Your task to perform on an android device: set the timer Image 0: 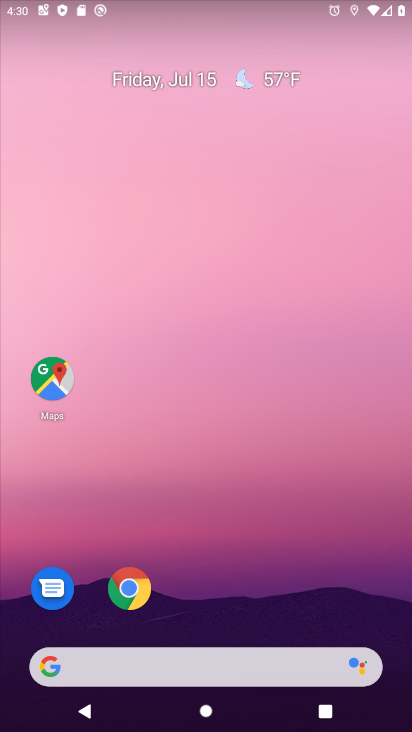
Step 0: drag from (234, 673) to (210, 139)
Your task to perform on an android device: set the timer Image 1: 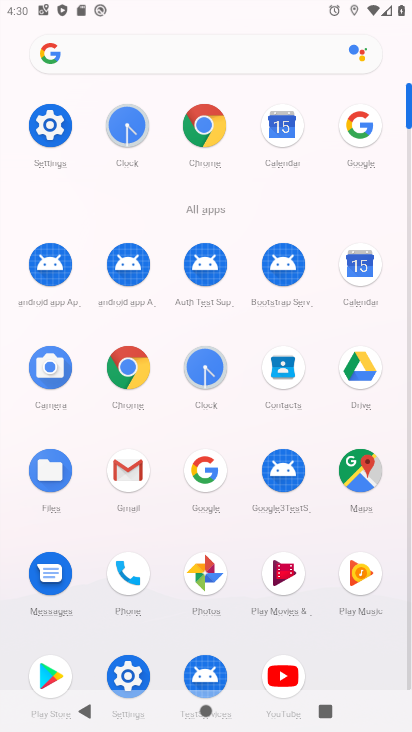
Step 1: click (205, 367)
Your task to perform on an android device: set the timer Image 2: 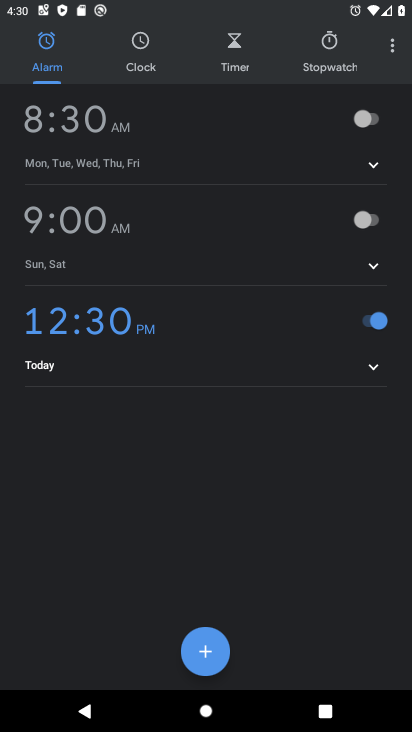
Step 2: click (394, 50)
Your task to perform on an android device: set the timer Image 3: 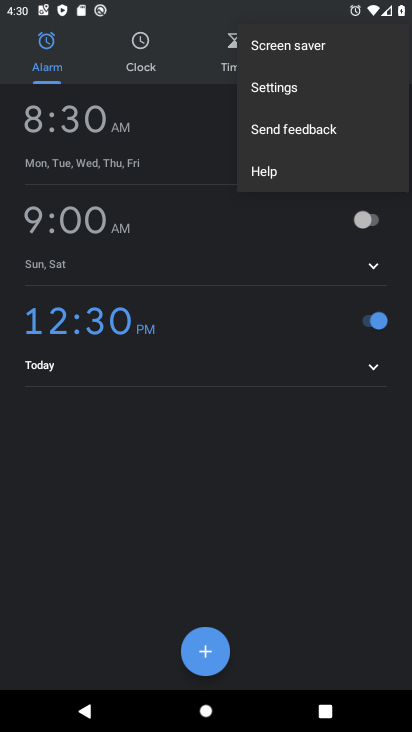
Step 3: click (292, 92)
Your task to perform on an android device: set the timer Image 4: 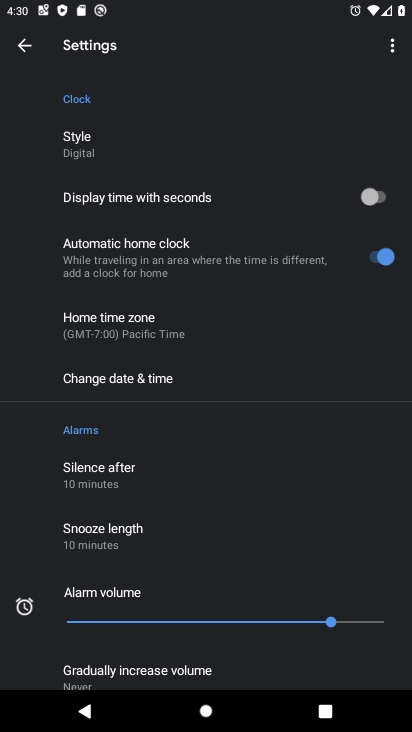
Step 4: drag from (188, 503) to (198, 281)
Your task to perform on an android device: set the timer Image 5: 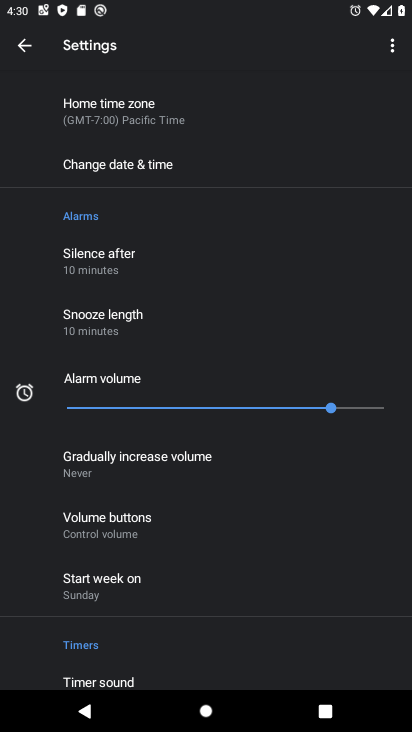
Step 5: drag from (192, 501) to (197, 356)
Your task to perform on an android device: set the timer Image 6: 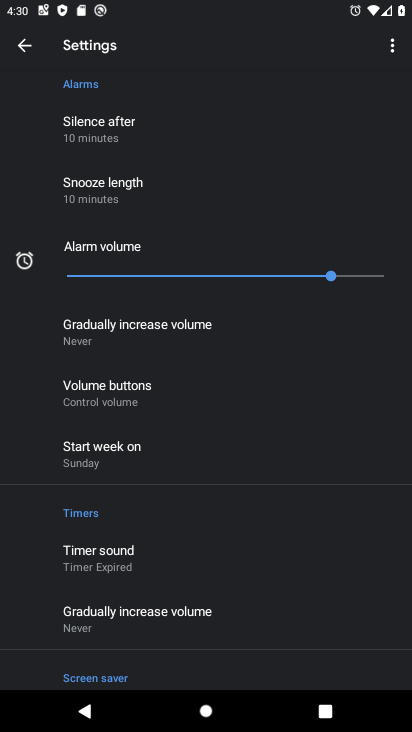
Step 6: click (109, 563)
Your task to perform on an android device: set the timer Image 7: 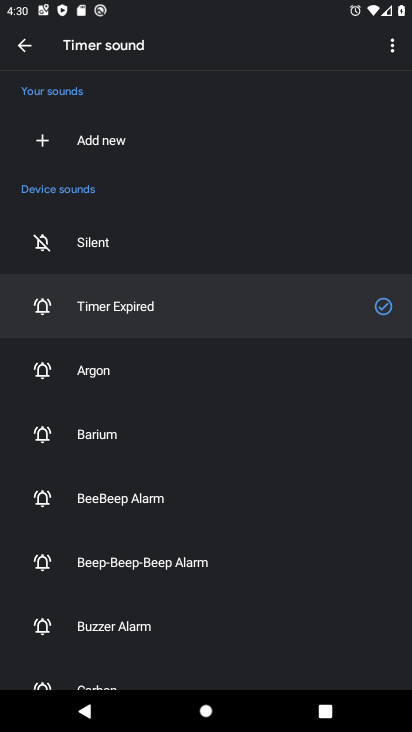
Step 7: drag from (167, 527) to (212, 380)
Your task to perform on an android device: set the timer Image 8: 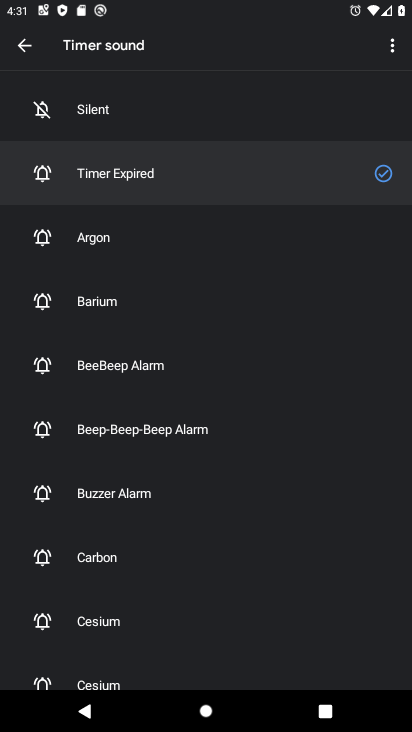
Step 8: drag from (140, 535) to (211, 323)
Your task to perform on an android device: set the timer Image 9: 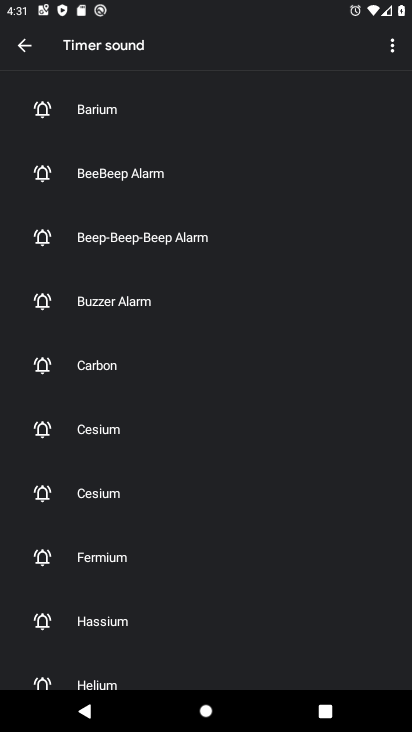
Step 9: click (119, 424)
Your task to perform on an android device: set the timer Image 10: 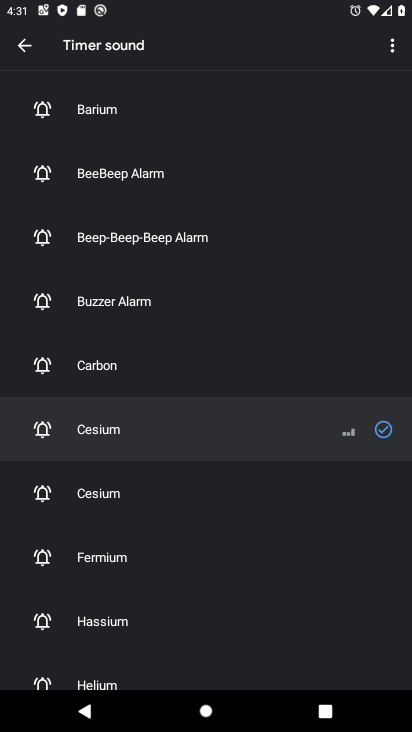
Step 10: task complete